Your task to perform on an android device: change timer sound Image 0: 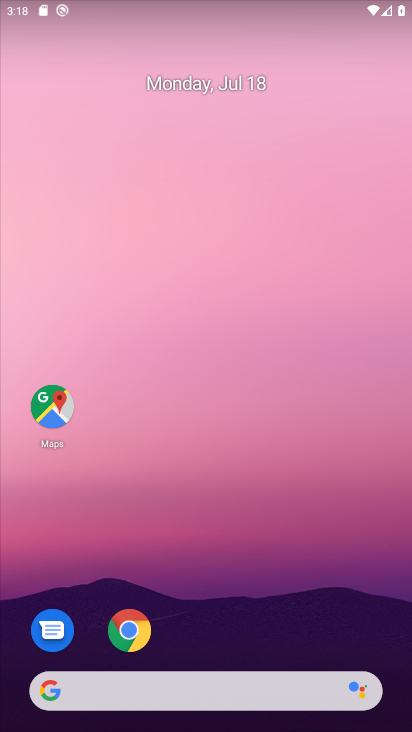
Step 0: drag from (189, 659) to (240, 234)
Your task to perform on an android device: change timer sound Image 1: 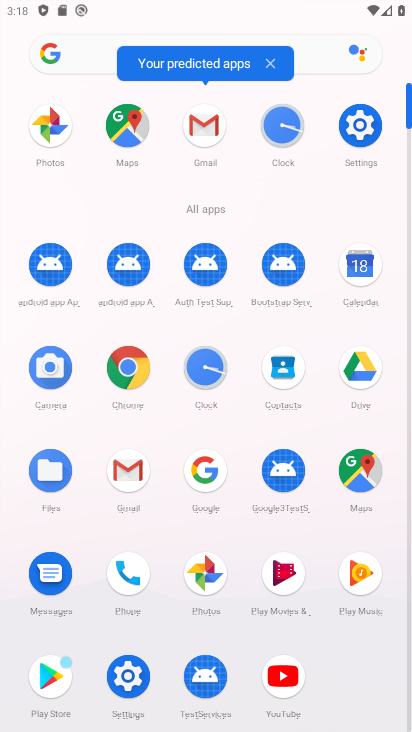
Step 1: click (208, 382)
Your task to perform on an android device: change timer sound Image 2: 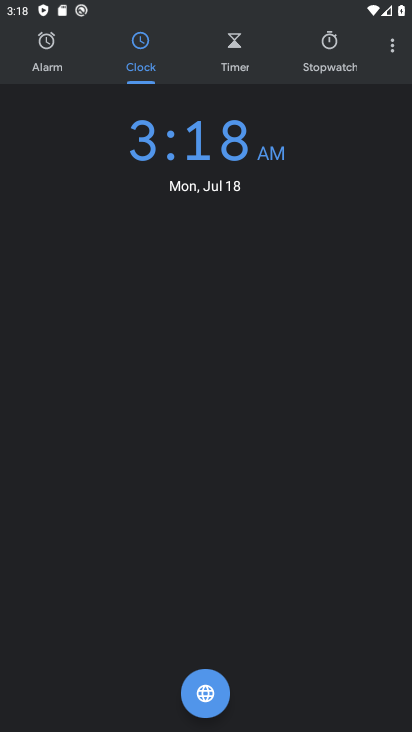
Step 2: click (391, 42)
Your task to perform on an android device: change timer sound Image 3: 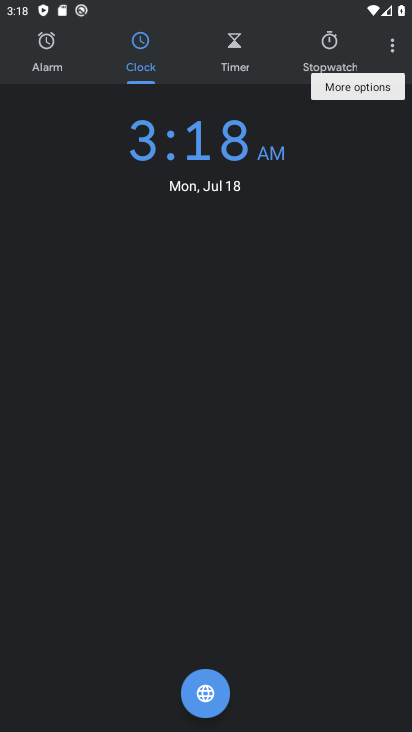
Step 3: click (393, 51)
Your task to perform on an android device: change timer sound Image 4: 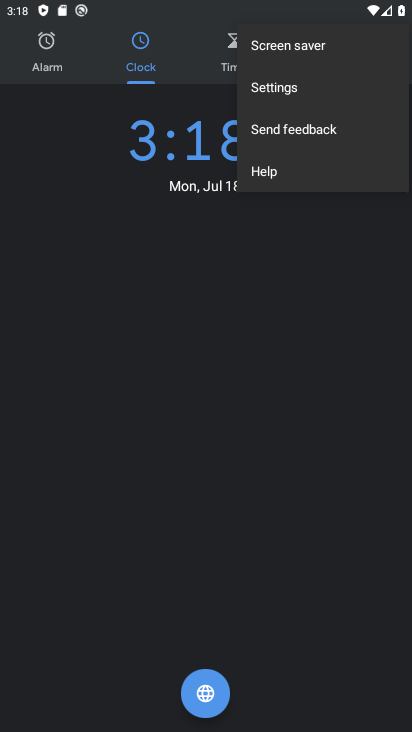
Step 4: click (324, 81)
Your task to perform on an android device: change timer sound Image 5: 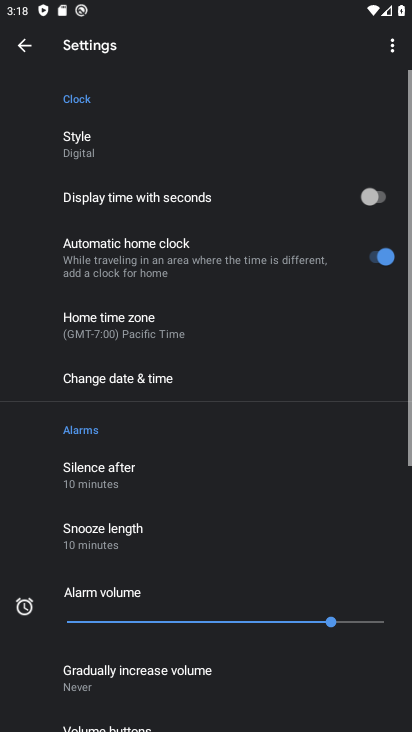
Step 5: drag from (138, 556) to (245, 280)
Your task to perform on an android device: change timer sound Image 6: 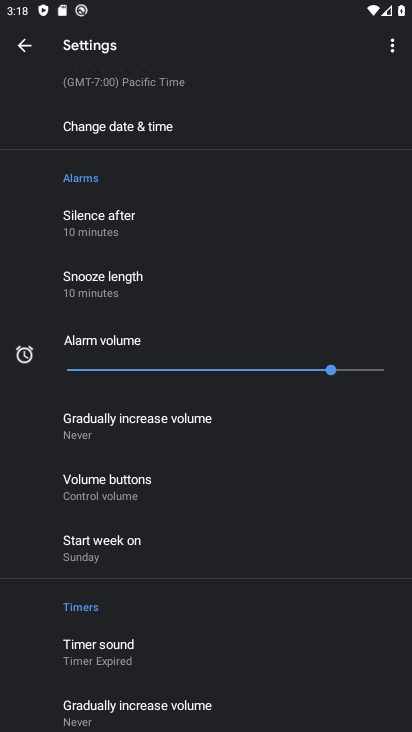
Step 6: click (99, 651)
Your task to perform on an android device: change timer sound Image 7: 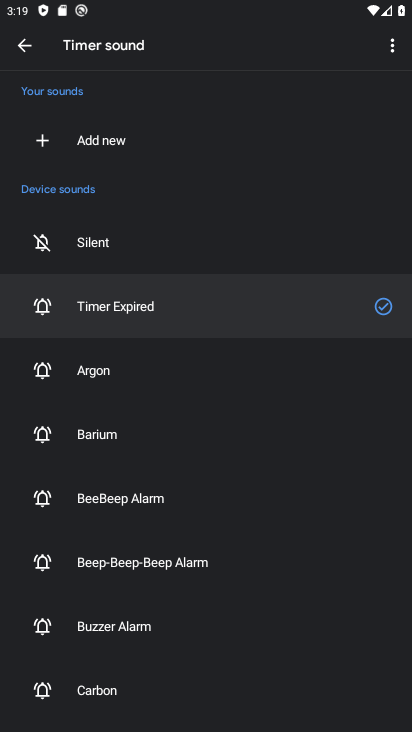
Step 7: drag from (152, 682) to (214, 374)
Your task to perform on an android device: change timer sound Image 8: 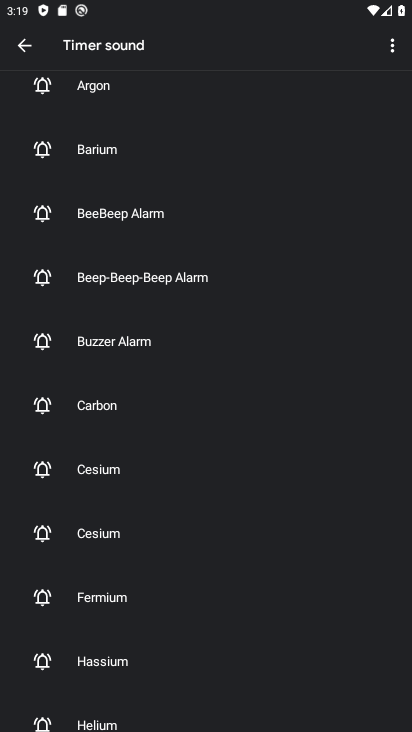
Step 8: click (151, 477)
Your task to perform on an android device: change timer sound Image 9: 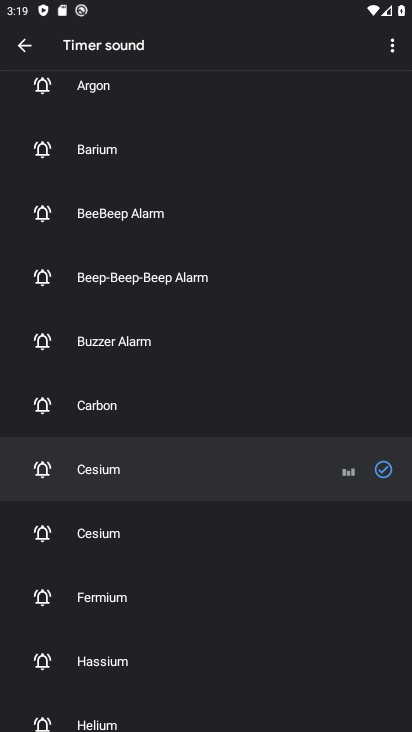
Step 9: task complete